Your task to perform on an android device: Open display settings Image 0: 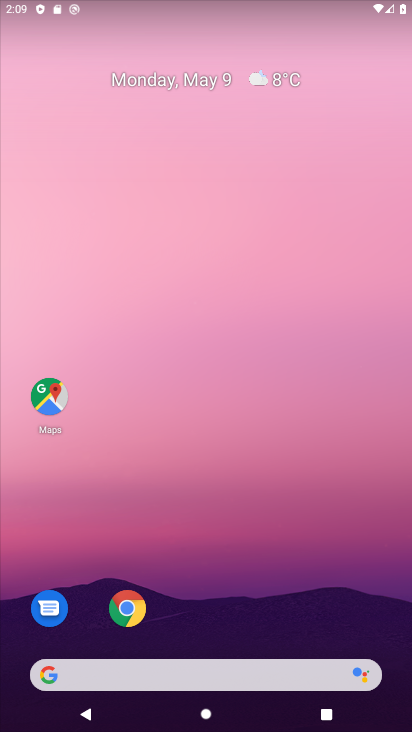
Step 0: drag from (190, 635) to (315, 138)
Your task to perform on an android device: Open display settings Image 1: 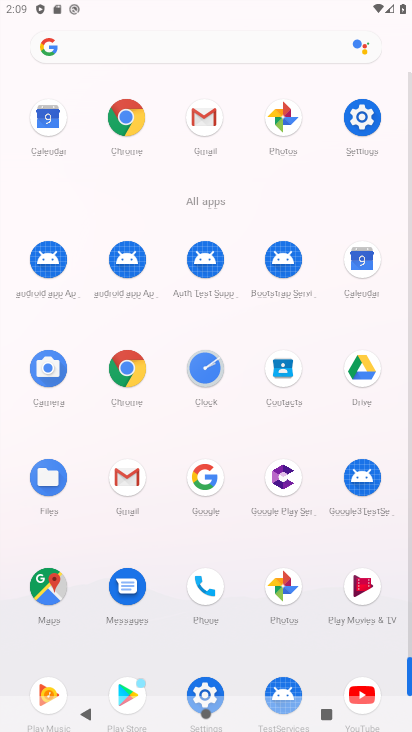
Step 1: click (384, 92)
Your task to perform on an android device: Open display settings Image 2: 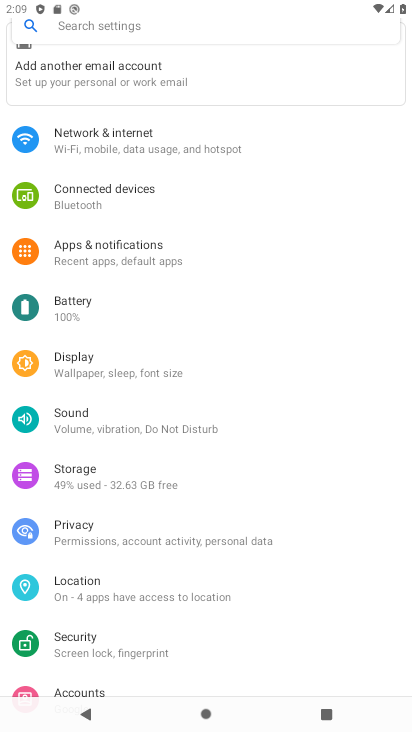
Step 2: click (168, 374)
Your task to perform on an android device: Open display settings Image 3: 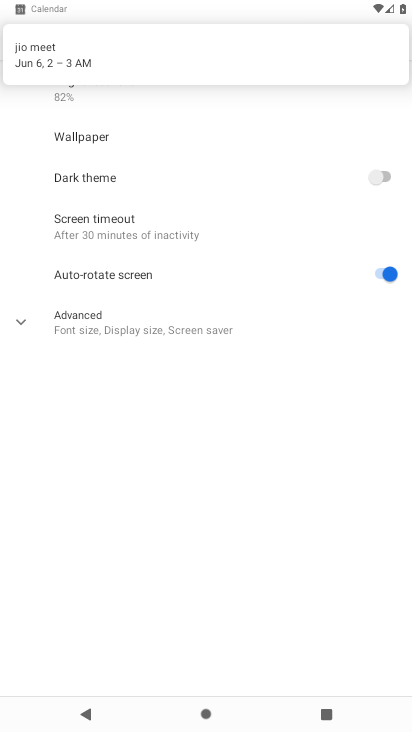
Step 3: task complete